Your task to perform on an android device: Open settings Image 0: 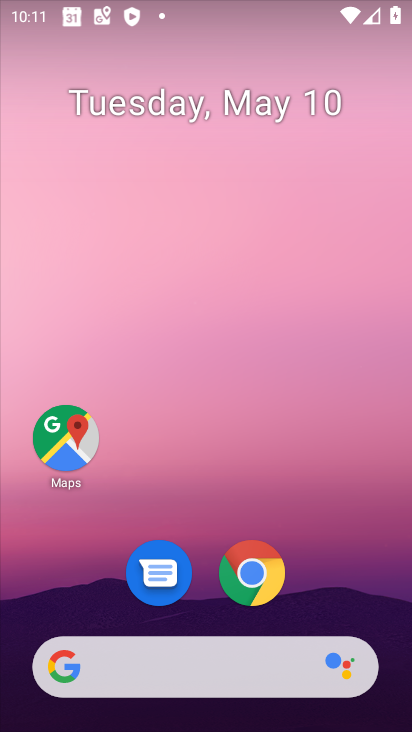
Step 0: drag from (313, 545) to (238, 169)
Your task to perform on an android device: Open settings Image 1: 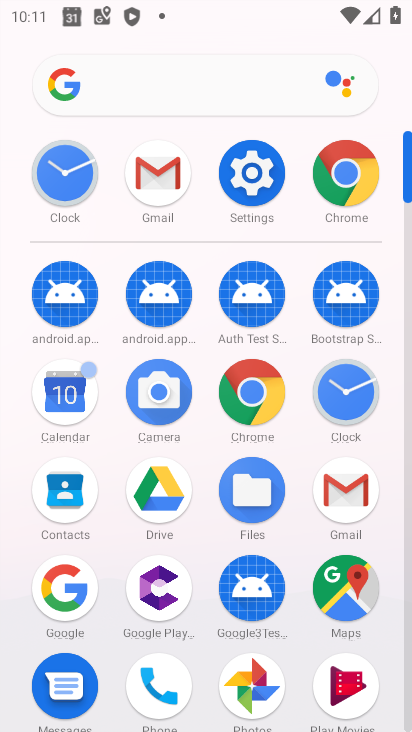
Step 1: click (259, 173)
Your task to perform on an android device: Open settings Image 2: 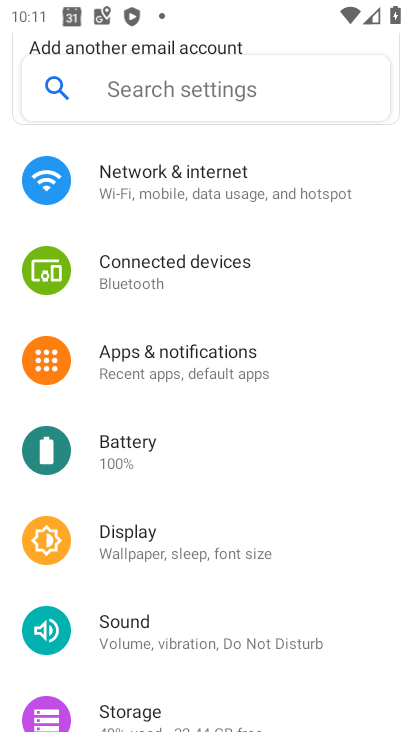
Step 2: task complete